Your task to perform on an android device: When is my next meeting? Image 0: 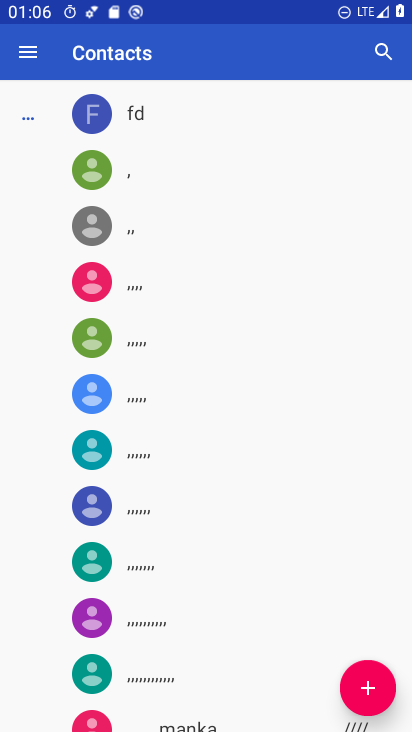
Step 0: press home button
Your task to perform on an android device: When is my next meeting? Image 1: 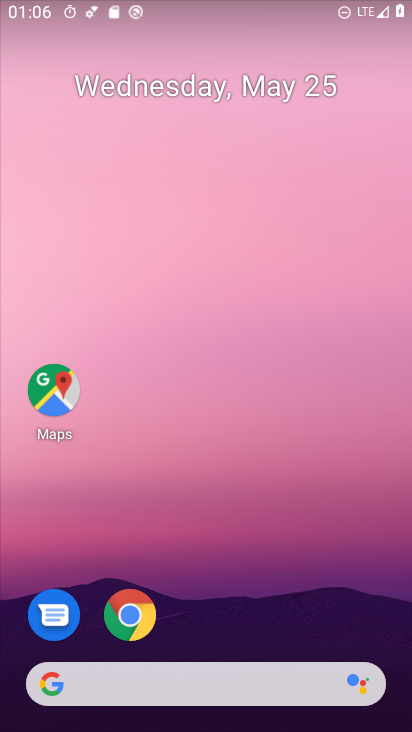
Step 1: drag from (255, 695) to (349, 86)
Your task to perform on an android device: When is my next meeting? Image 2: 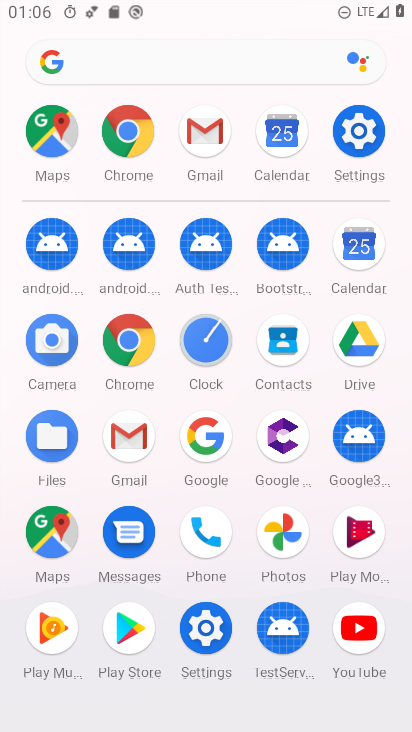
Step 2: click (356, 235)
Your task to perform on an android device: When is my next meeting? Image 3: 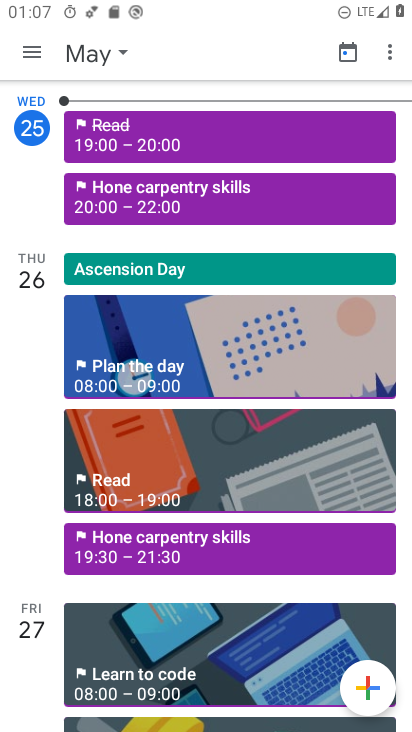
Step 3: click (35, 52)
Your task to perform on an android device: When is my next meeting? Image 4: 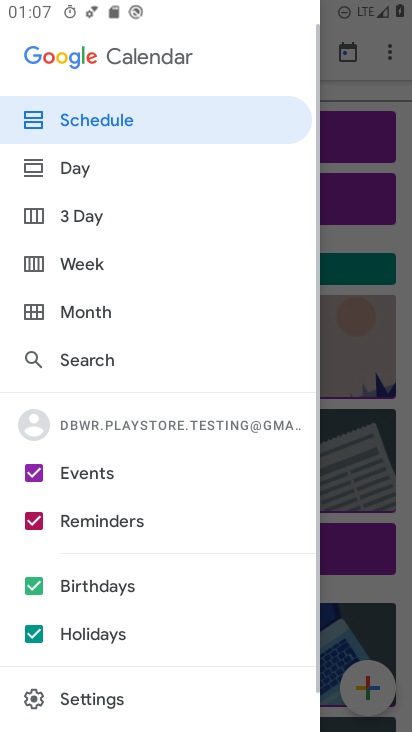
Step 4: click (91, 116)
Your task to perform on an android device: When is my next meeting? Image 5: 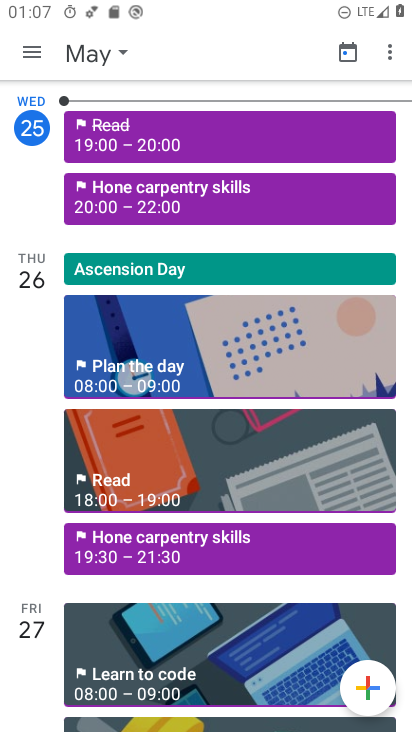
Step 5: task complete